Your task to perform on an android device: Search for a 3d printer on aliexpress Image 0: 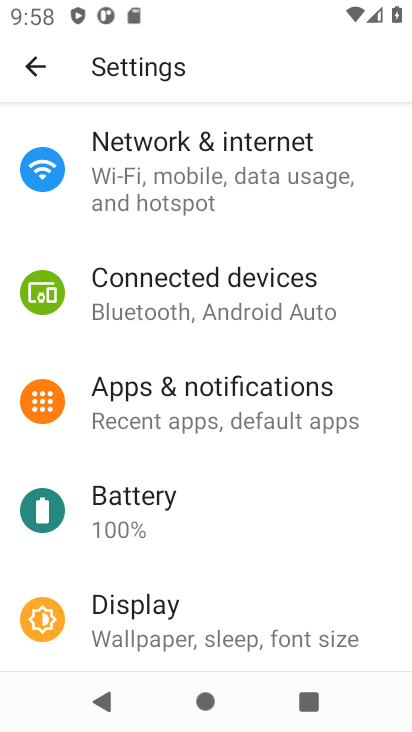
Step 0: press home button
Your task to perform on an android device: Search for a 3d printer on aliexpress Image 1: 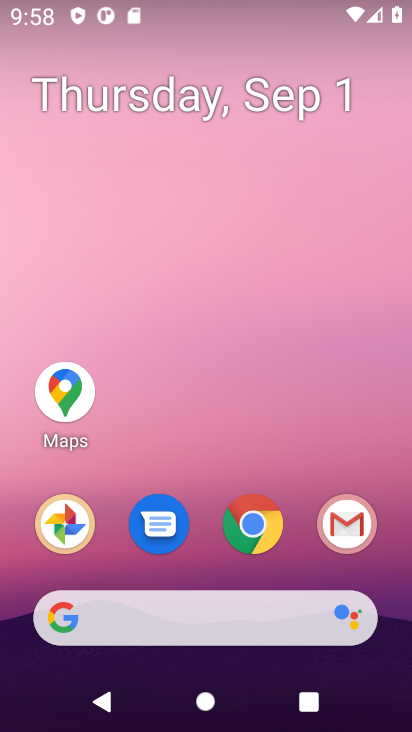
Step 1: drag from (385, 579) to (374, 116)
Your task to perform on an android device: Search for a 3d printer on aliexpress Image 2: 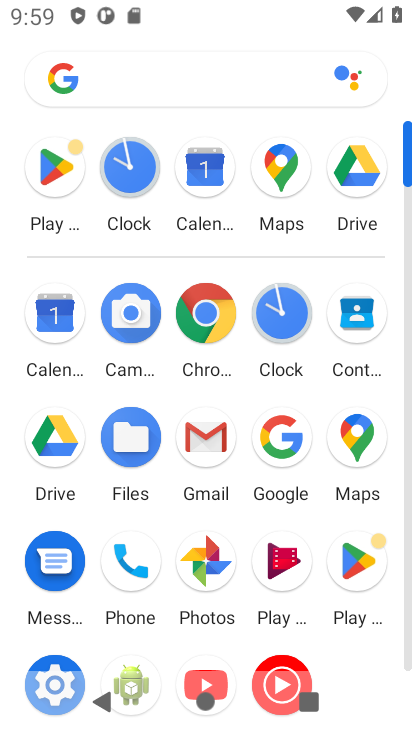
Step 2: click (214, 311)
Your task to perform on an android device: Search for a 3d printer on aliexpress Image 3: 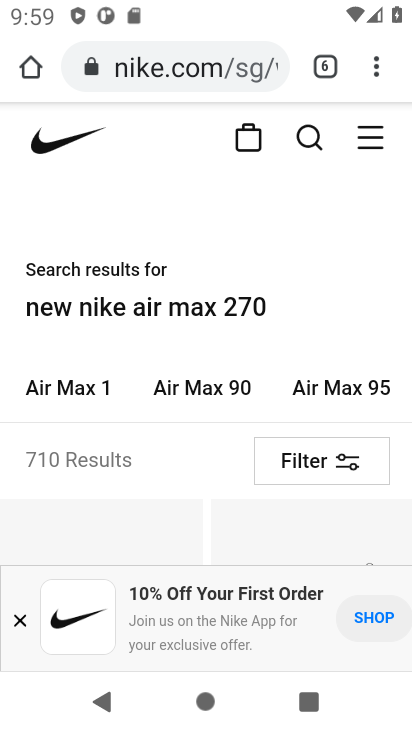
Step 3: click (161, 70)
Your task to perform on an android device: Search for a 3d printer on aliexpress Image 4: 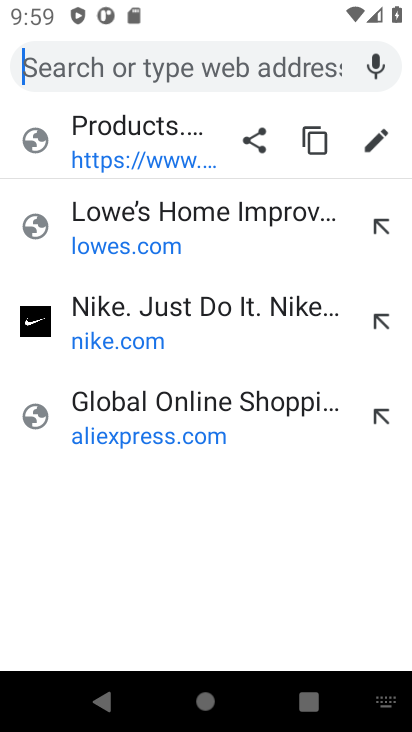
Step 4: type "aliexpress"
Your task to perform on an android device: Search for a 3d printer on aliexpress Image 5: 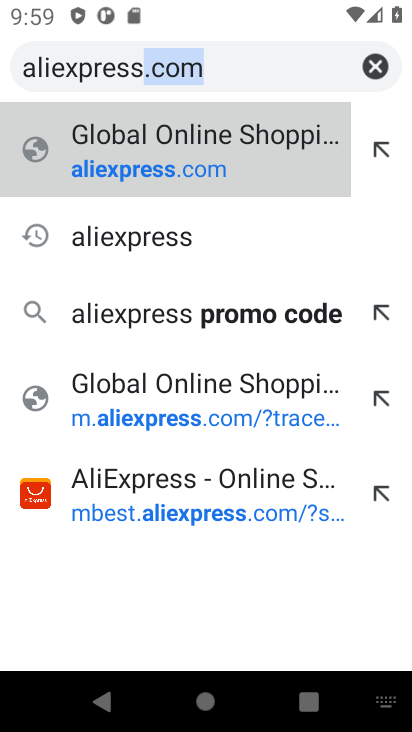
Step 5: click (164, 240)
Your task to perform on an android device: Search for a 3d printer on aliexpress Image 6: 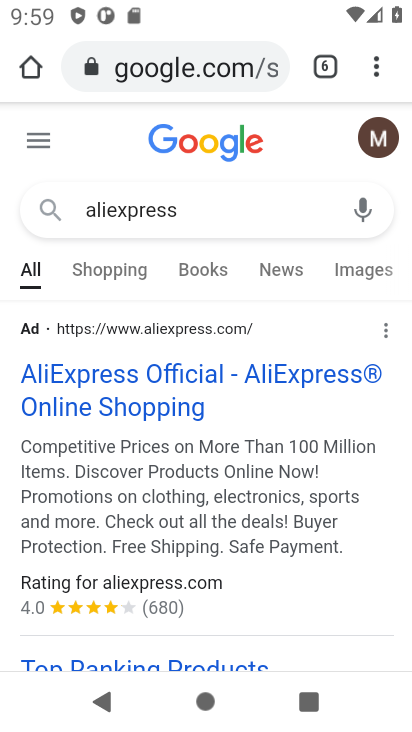
Step 6: click (222, 377)
Your task to perform on an android device: Search for a 3d printer on aliexpress Image 7: 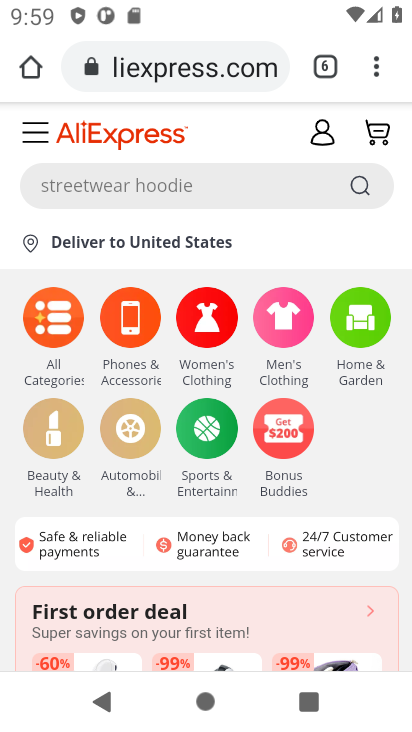
Step 7: click (125, 178)
Your task to perform on an android device: Search for a 3d printer on aliexpress Image 8: 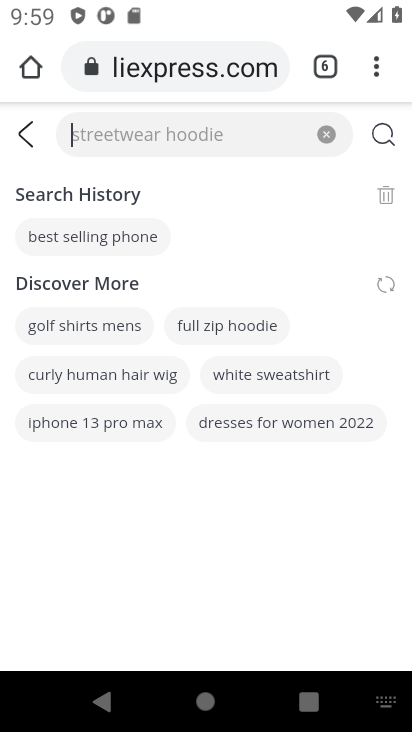
Step 8: press enter
Your task to perform on an android device: Search for a 3d printer on aliexpress Image 9: 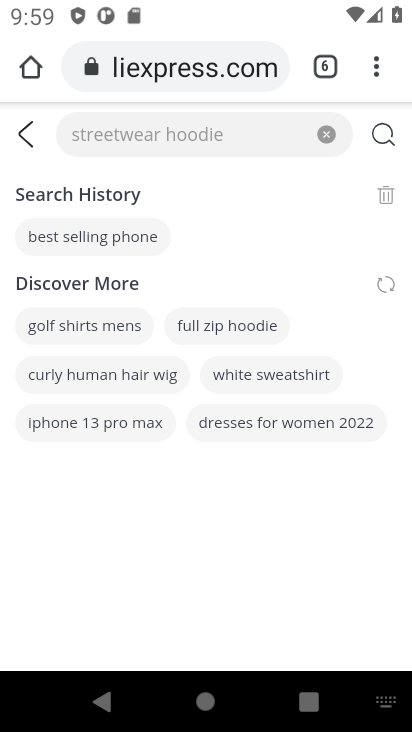
Step 9: type "3d printer"
Your task to perform on an android device: Search for a 3d printer on aliexpress Image 10: 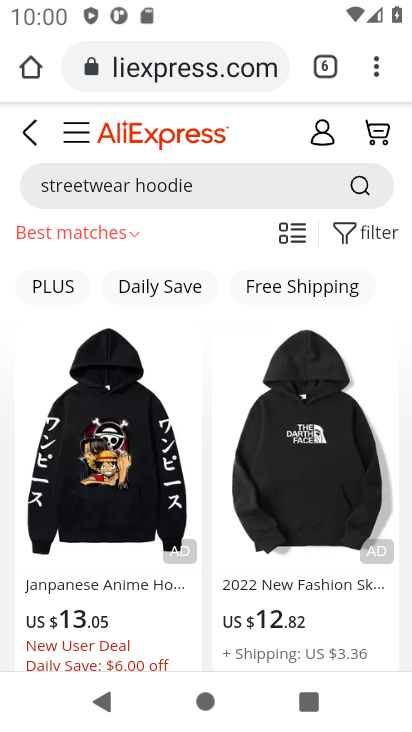
Step 10: click (229, 183)
Your task to perform on an android device: Search for a 3d printer on aliexpress Image 11: 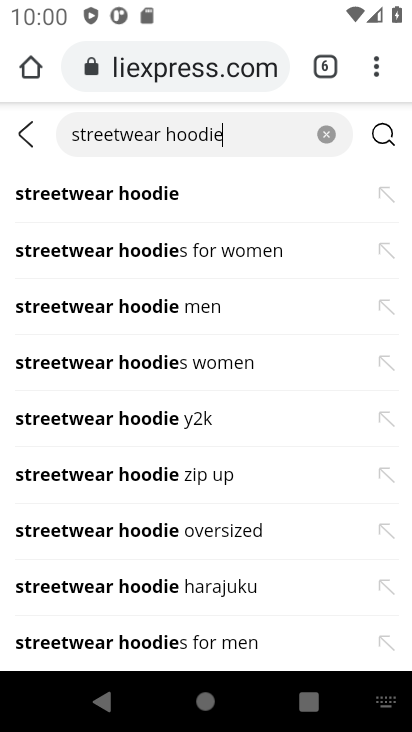
Step 11: click (327, 131)
Your task to perform on an android device: Search for a 3d printer on aliexpress Image 12: 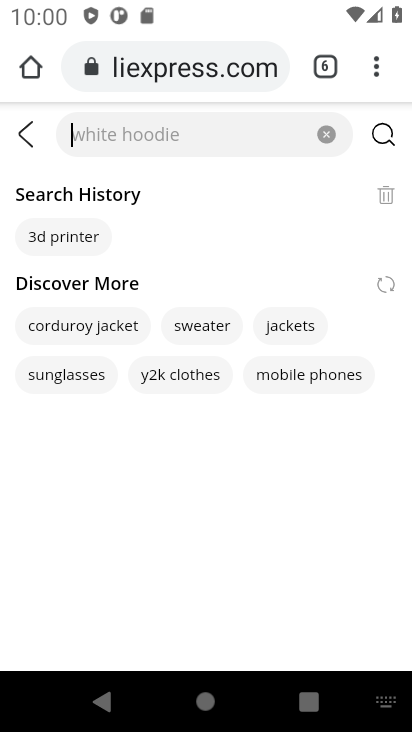
Step 12: click (61, 229)
Your task to perform on an android device: Search for a 3d printer on aliexpress Image 13: 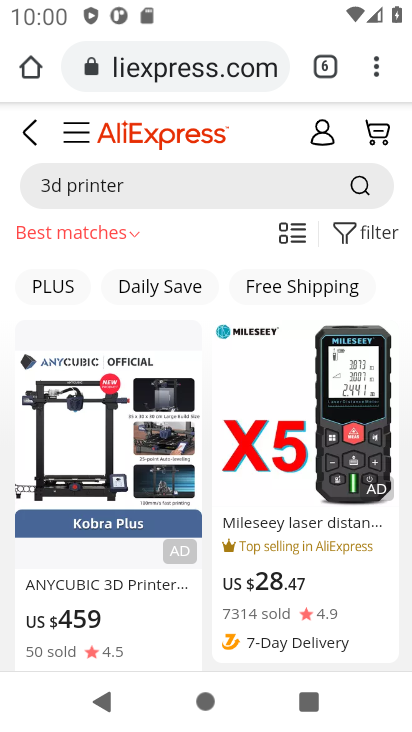
Step 13: click (386, 226)
Your task to perform on an android device: Search for a 3d printer on aliexpress Image 14: 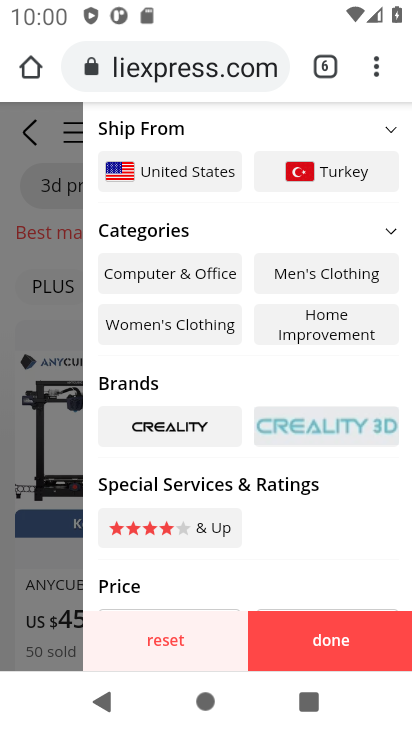
Step 14: click (389, 228)
Your task to perform on an android device: Search for a 3d printer on aliexpress Image 15: 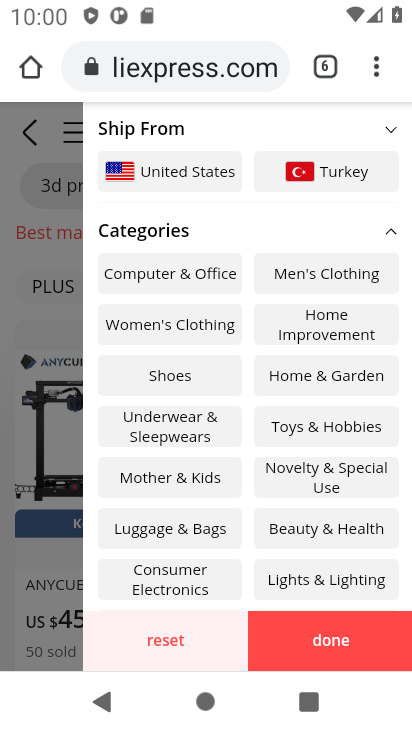
Step 15: drag from (271, 411) to (267, 262)
Your task to perform on an android device: Search for a 3d printer on aliexpress Image 16: 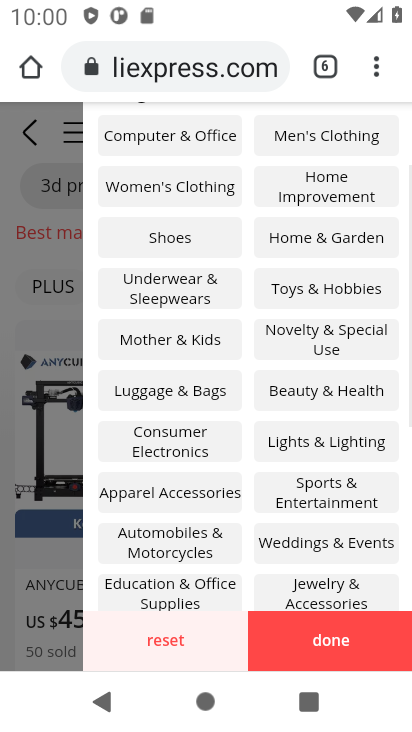
Step 16: drag from (241, 547) to (252, 231)
Your task to perform on an android device: Search for a 3d printer on aliexpress Image 17: 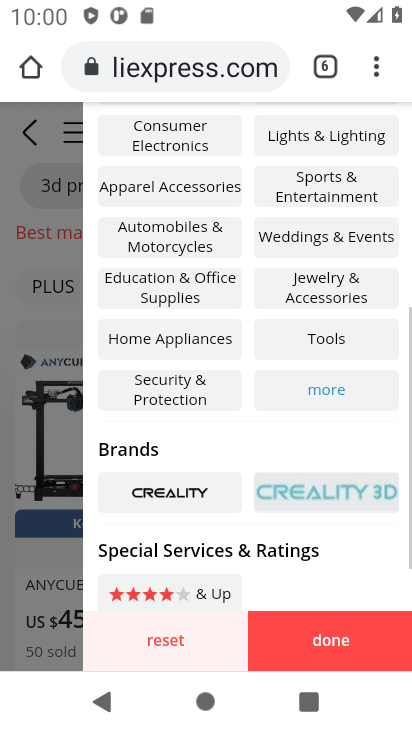
Step 17: click (338, 394)
Your task to perform on an android device: Search for a 3d printer on aliexpress Image 18: 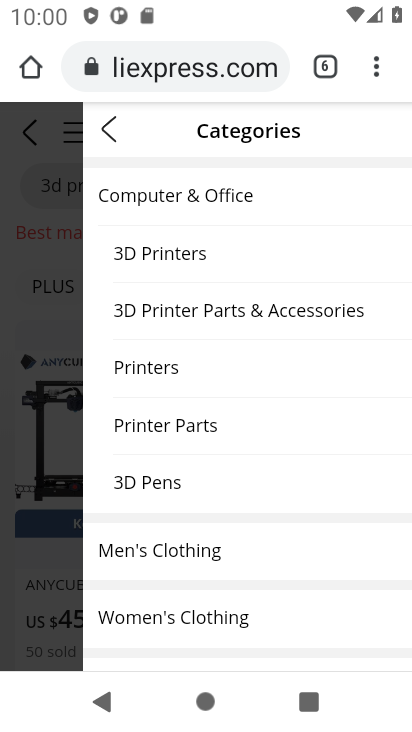
Step 18: click (174, 249)
Your task to perform on an android device: Search for a 3d printer on aliexpress Image 19: 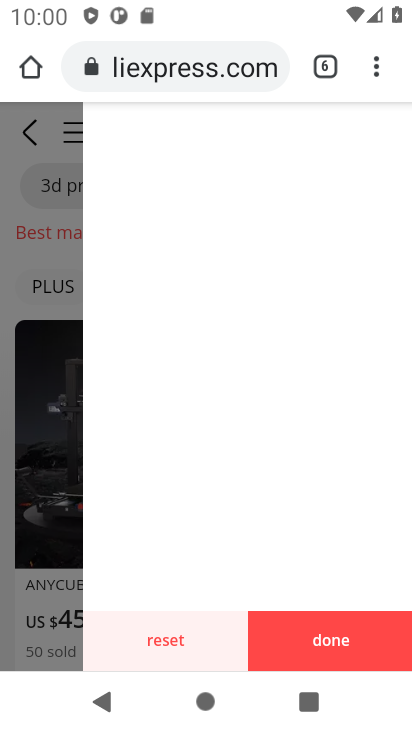
Step 19: click (324, 642)
Your task to perform on an android device: Search for a 3d printer on aliexpress Image 20: 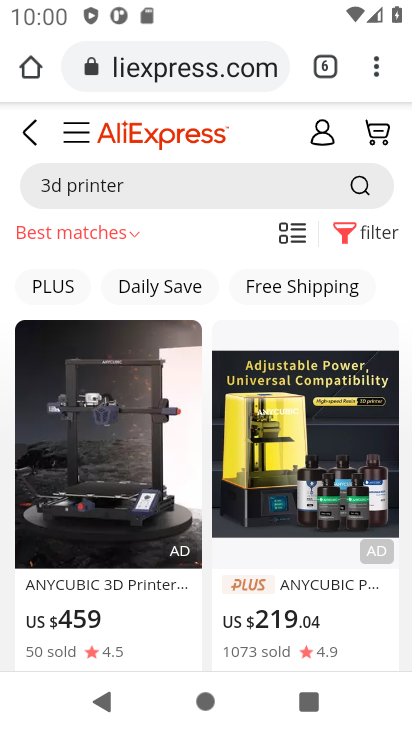
Step 20: task complete